Your task to perform on an android device: Open settings on Google Maps Image 0: 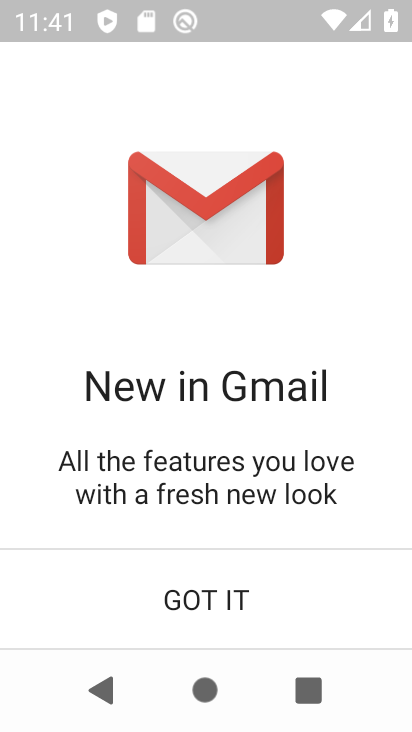
Step 0: press home button
Your task to perform on an android device: Open settings on Google Maps Image 1: 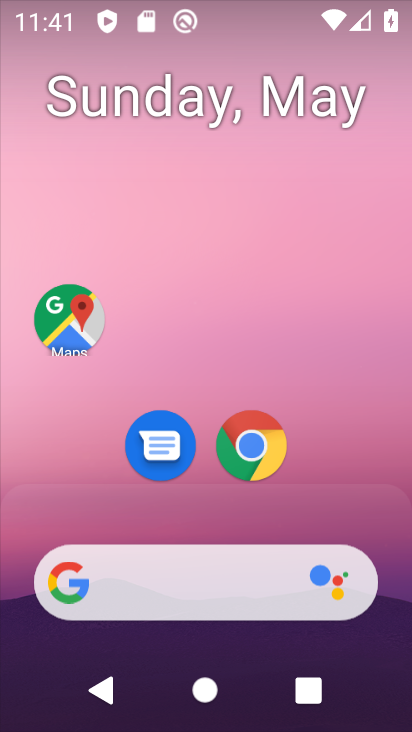
Step 1: drag from (291, 503) to (302, 62)
Your task to perform on an android device: Open settings on Google Maps Image 2: 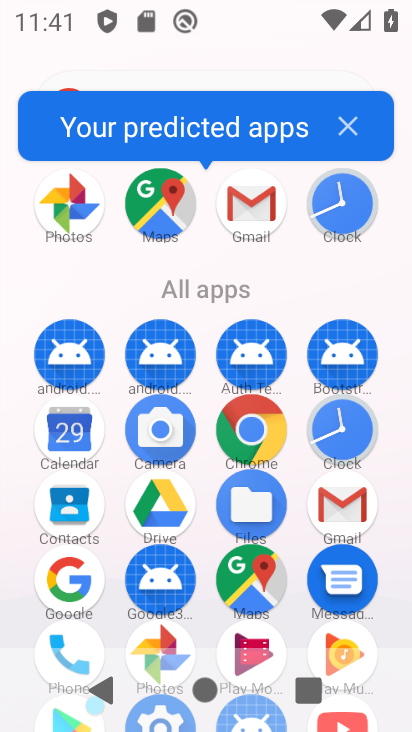
Step 2: click (250, 580)
Your task to perform on an android device: Open settings on Google Maps Image 3: 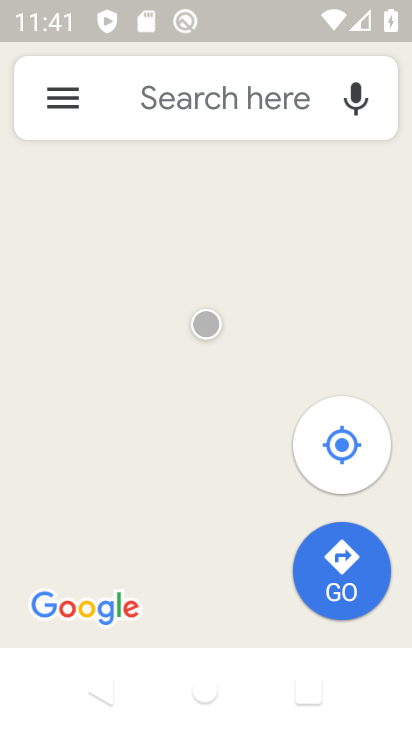
Step 3: click (60, 94)
Your task to perform on an android device: Open settings on Google Maps Image 4: 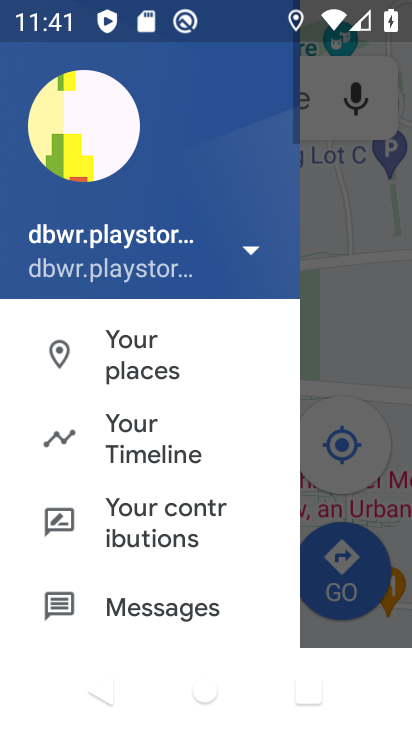
Step 4: drag from (155, 631) to (170, 157)
Your task to perform on an android device: Open settings on Google Maps Image 5: 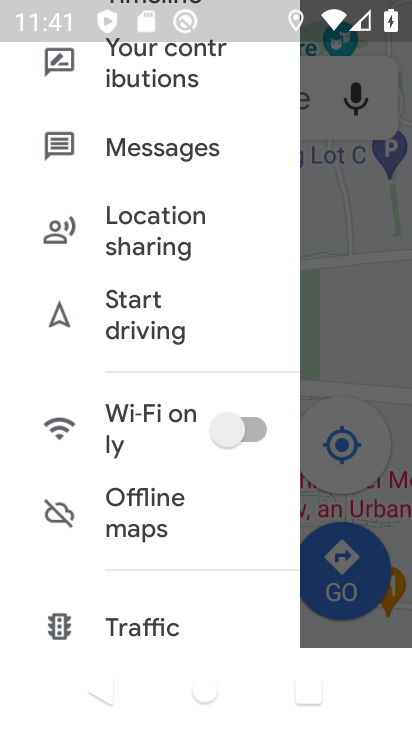
Step 5: drag from (178, 577) to (184, 103)
Your task to perform on an android device: Open settings on Google Maps Image 6: 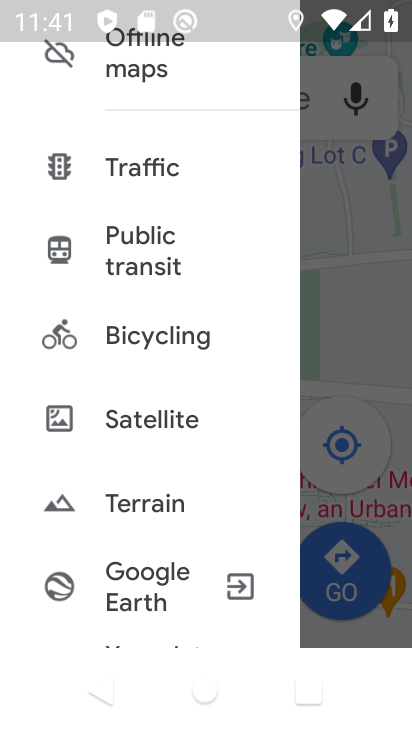
Step 6: drag from (193, 593) to (181, 159)
Your task to perform on an android device: Open settings on Google Maps Image 7: 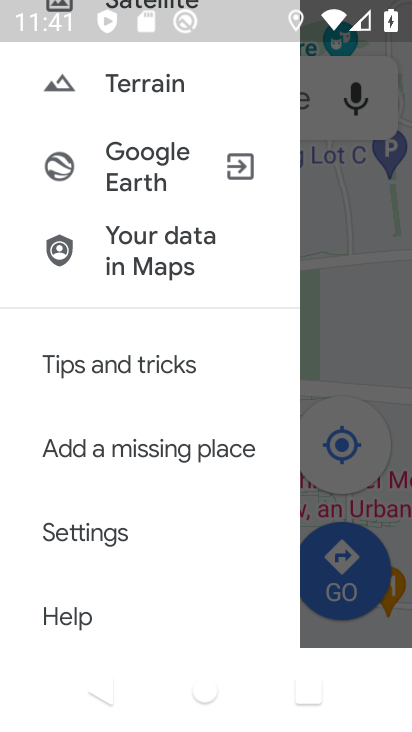
Step 7: click (96, 524)
Your task to perform on an android device: Open settings on Google Maps Image 8: 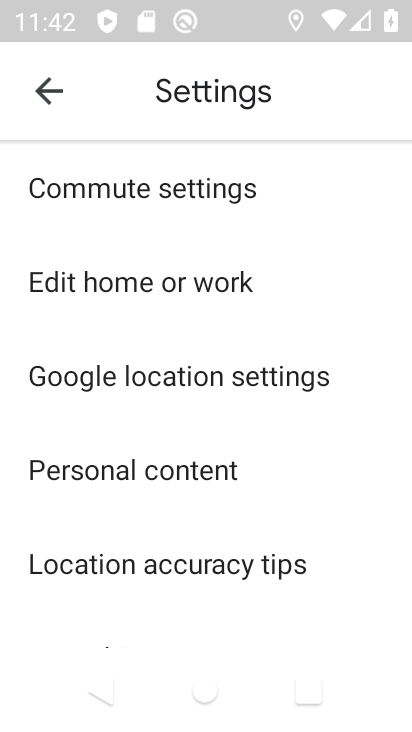
Step 8: task complete